Your task to perform on an android device: Open calendar and show me the third week of next month Image 0: 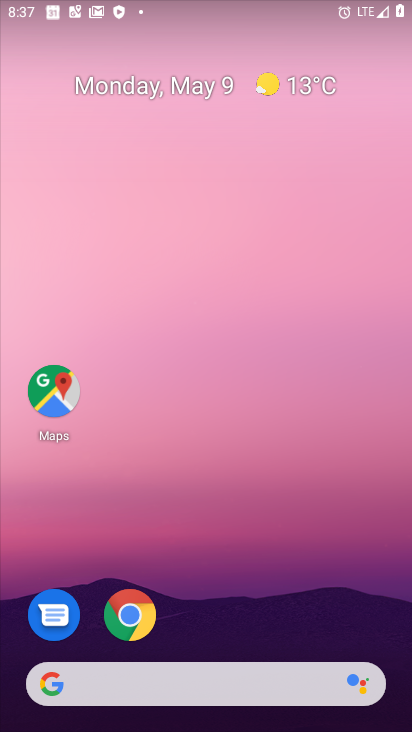
Step 0: click (178, 94)
Your task to perform on an android device: Open calendar and show me the third week of next month Image 1: 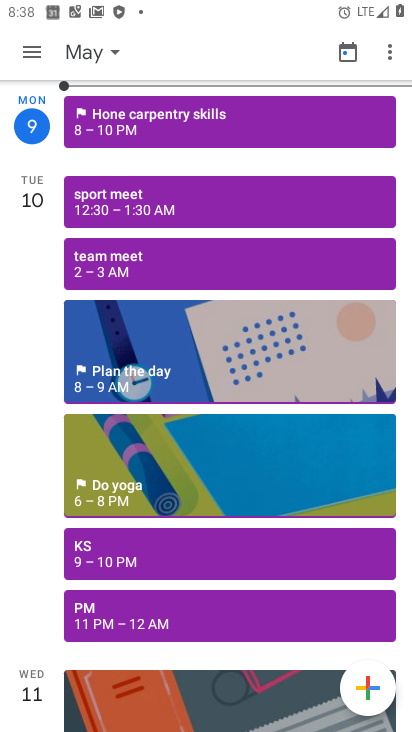
Step 1: click (90, 59)
Your task to perform on an android device: Open calendar and show me the third week of next month Image 2: 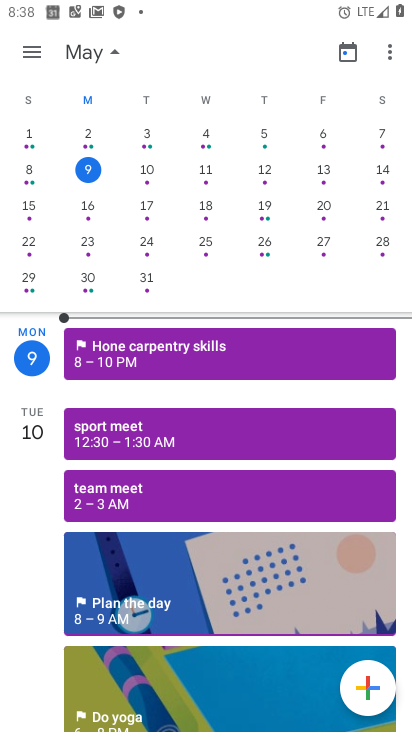
Step 2: drag from (353, 289) to (15, 254)
Your task to perform on an android device: Open calendar and show me the third week of next month Image 3: 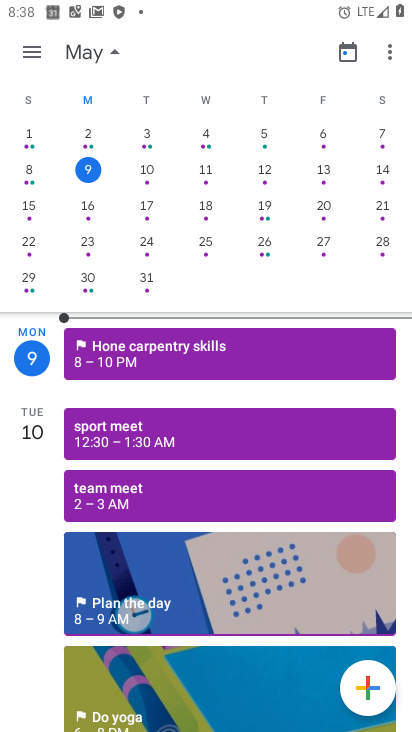
Step 3: drag from (393, 196) to (73, 147)
Your task to perform on an android device: Open calendar and show me the third week of next month Image 4: 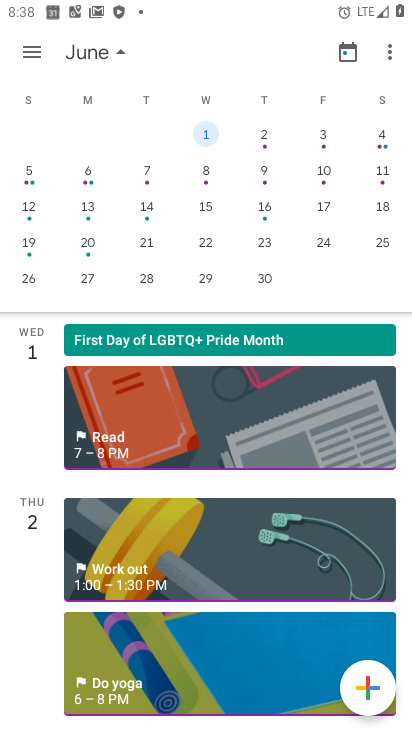
Step 4: click (332, 213)
Your task to perform on an android device: Open calendar and show me the third week of next month Image 5: 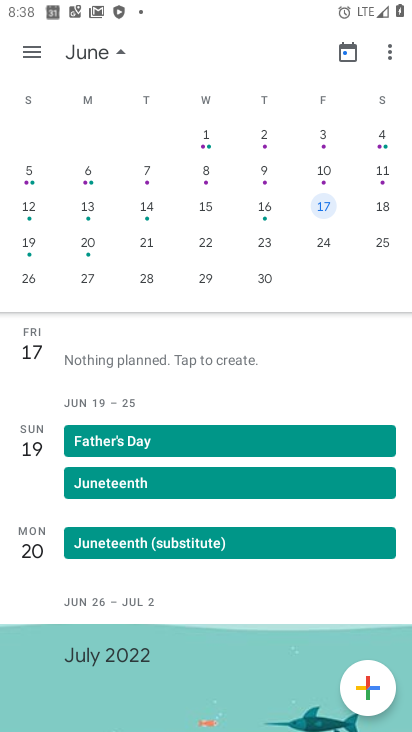
Step 5: task complete